Your task to perform on an android device: move a message to another label in the gmail app Image 0: 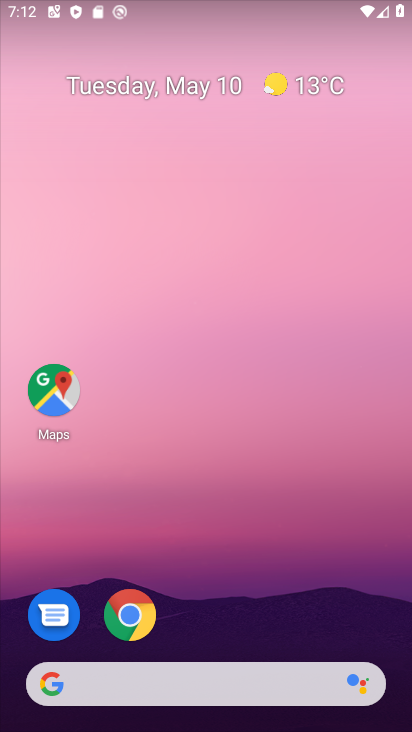
Step 0: drag from (312, 546) to (311, 61)
Your task to perform on an android device: move a message to another label in the gmail app Image 1: 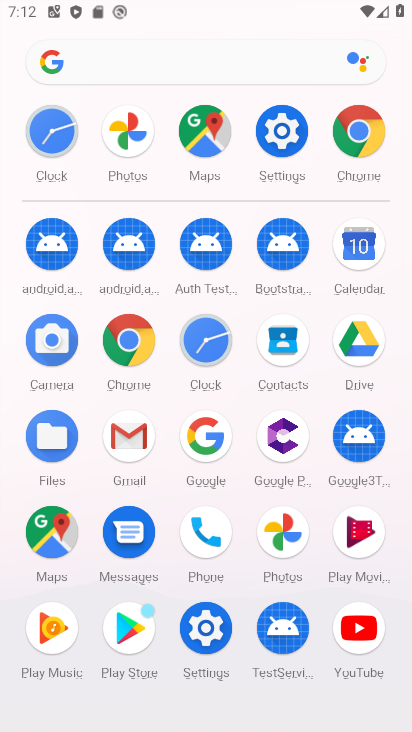
Step 1: click (118, 440)
Your task to perform on an android device: move a message to another label in the gmail app Image 2: 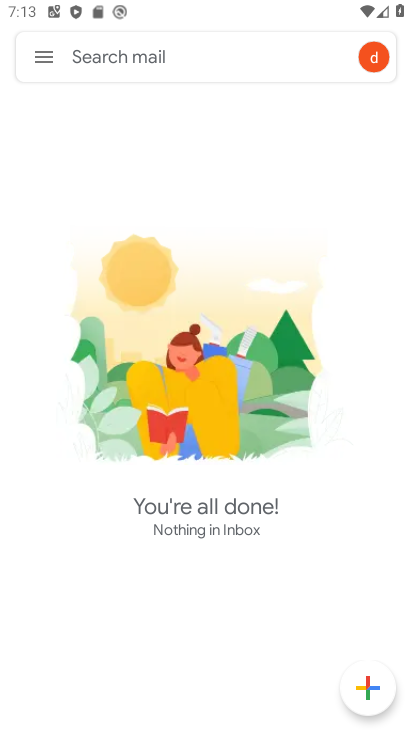
Step 2: task complete